Your task to perform on an android device: turn on airplane mode Image 0: 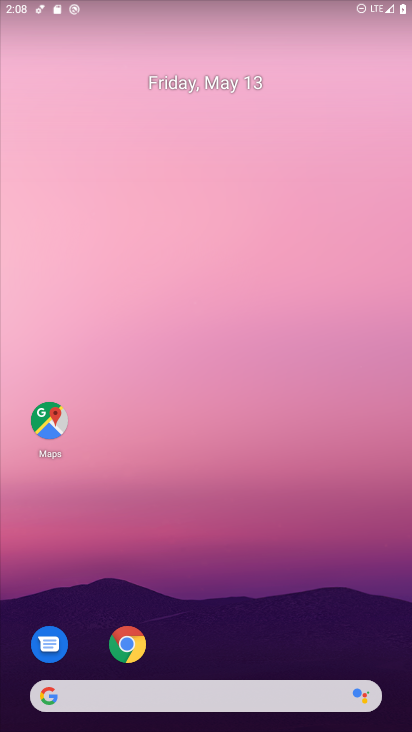
Step 0: drag from (348, 628) to (236, 109)
Your task to perform on an android device: turn on airplane mode Image 1: 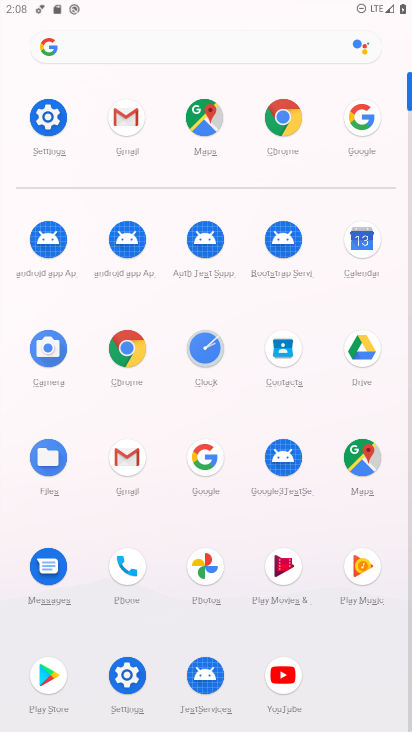
Step 1: drag from (239, 6) to (265, 575)
Your task to perform on an android device: turn on airplane mode Image 2: 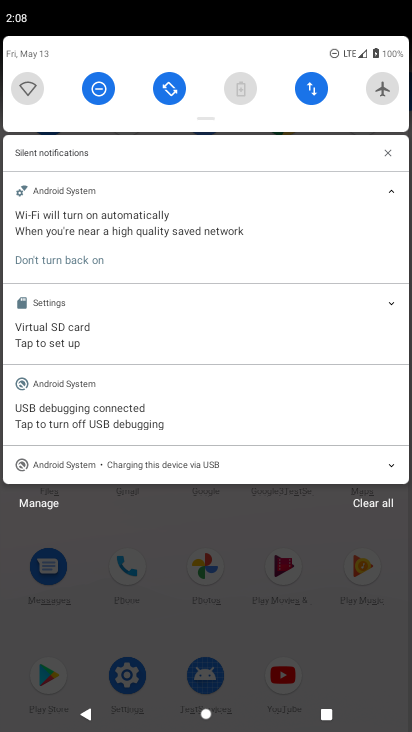
Step 2: click (373, 88)
Your task to perform on an android device: turn on airplane mode Image 3: 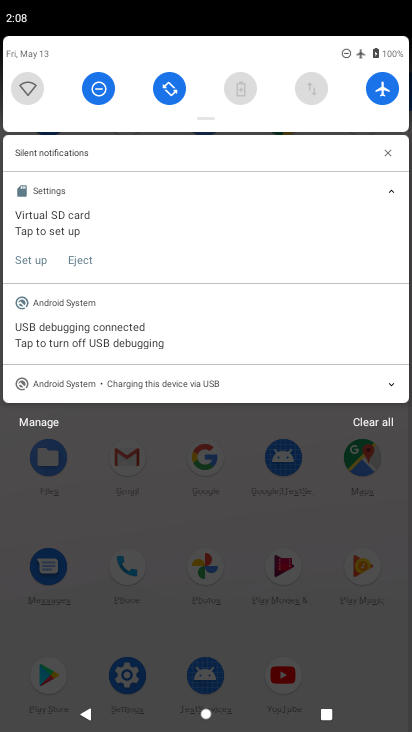
Step 3: task complete